Your task to perform on an android device: Empty the shopping cart on ebay. Add rayovac triple a to the cart on ebay Image 0: 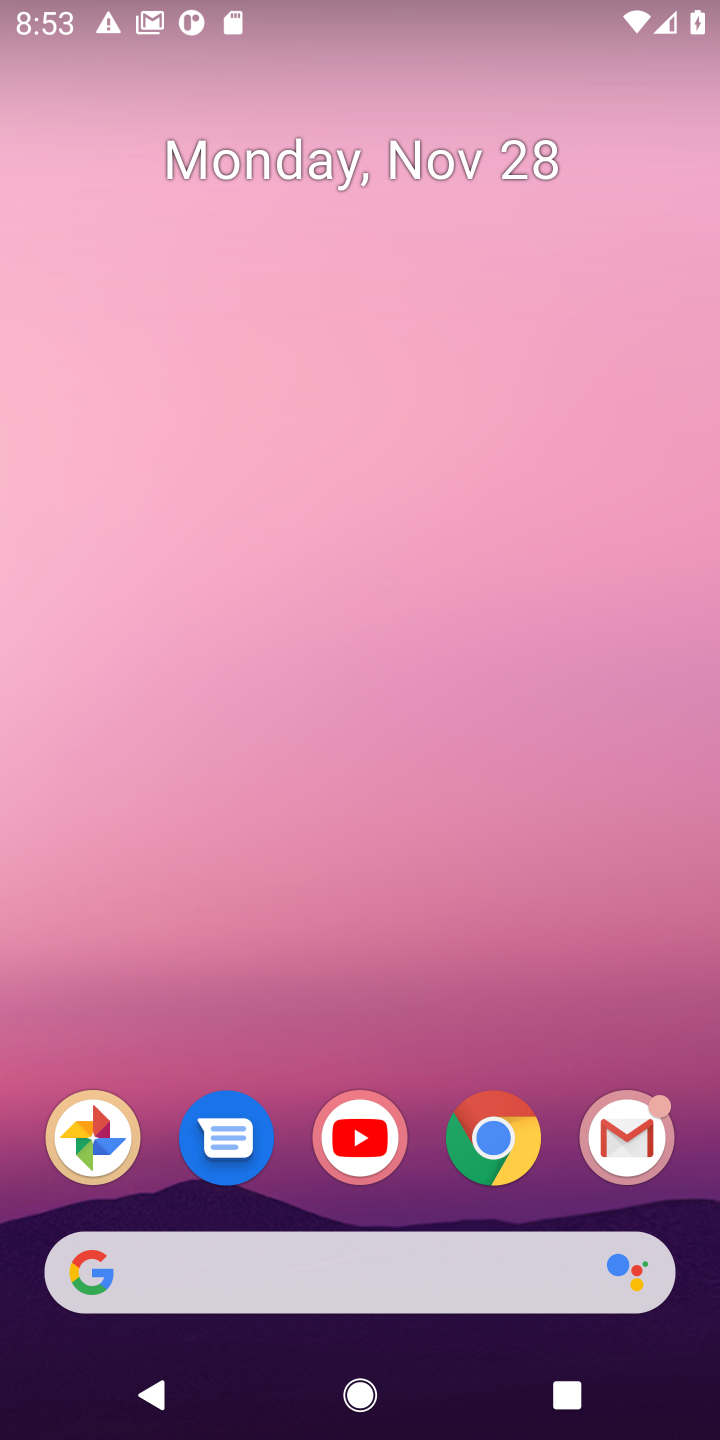
Step 0: click (496, 1144)
Your task to perform on an android device: Empty the shopping cart on ebay. Add rayovac triple a to the cart on ebay Image 1: 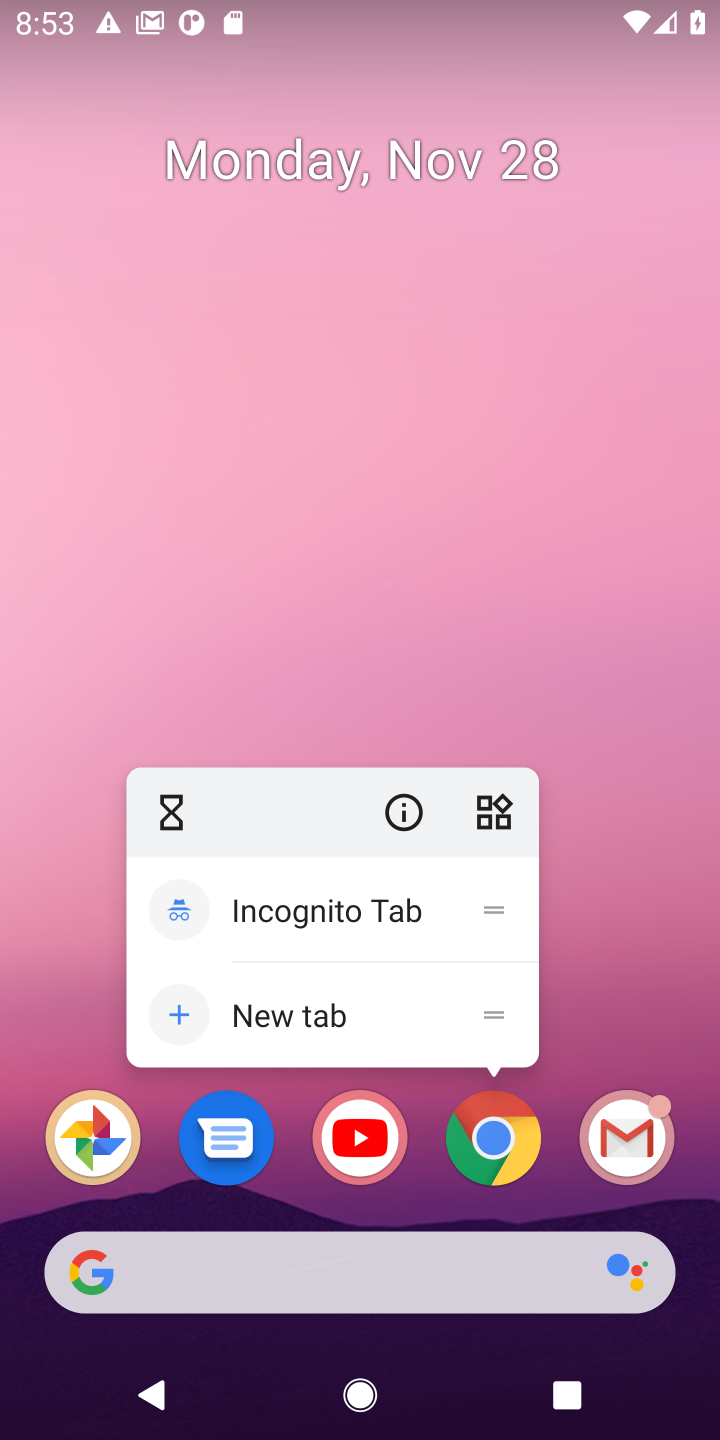
Step 1: click (496, 1144)
Your task to perform on an android device: Empty the shopping cart on ebay. Add rayovac triple a to the cart on ebay Image 2: 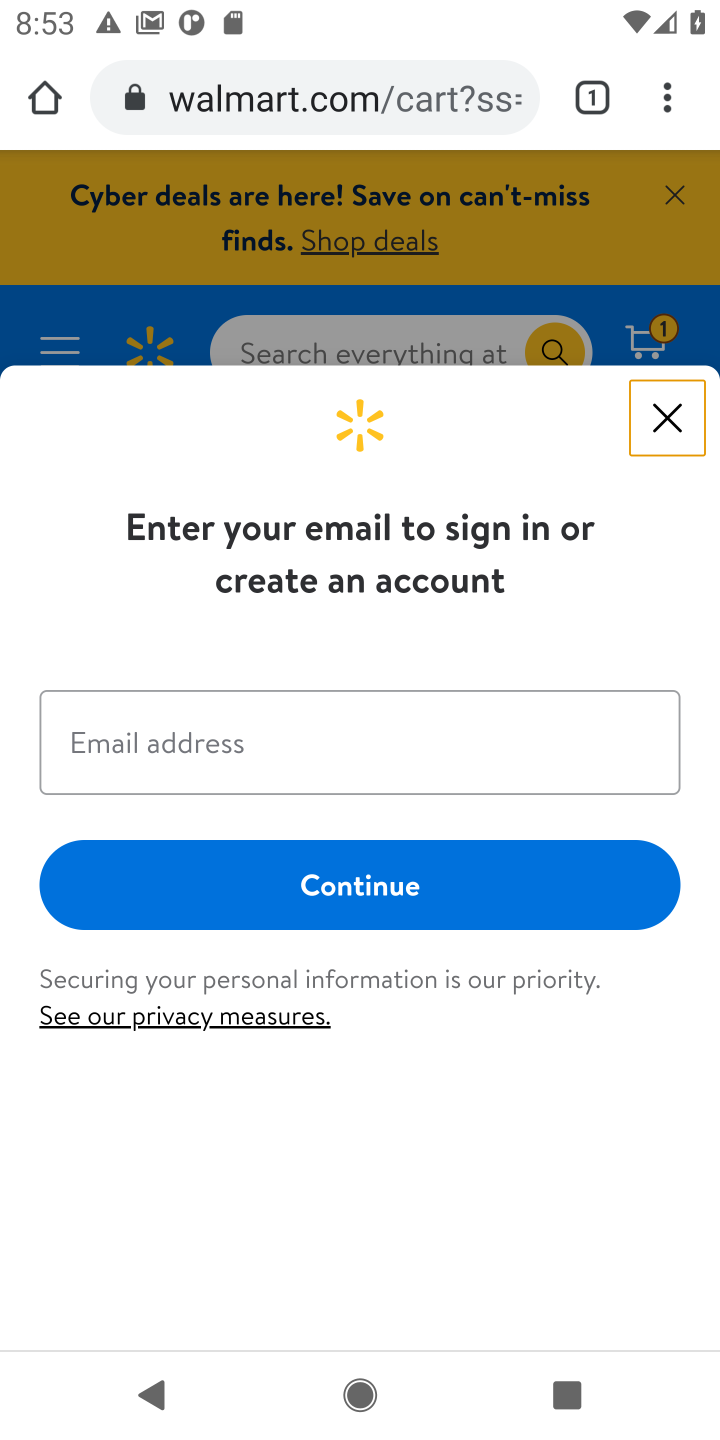
Step 2: click (267, 108)
Your task to perform on an android device: Empty the shopping cart on ebay. Add rayovac triple a to the cart on ebay Image 3: 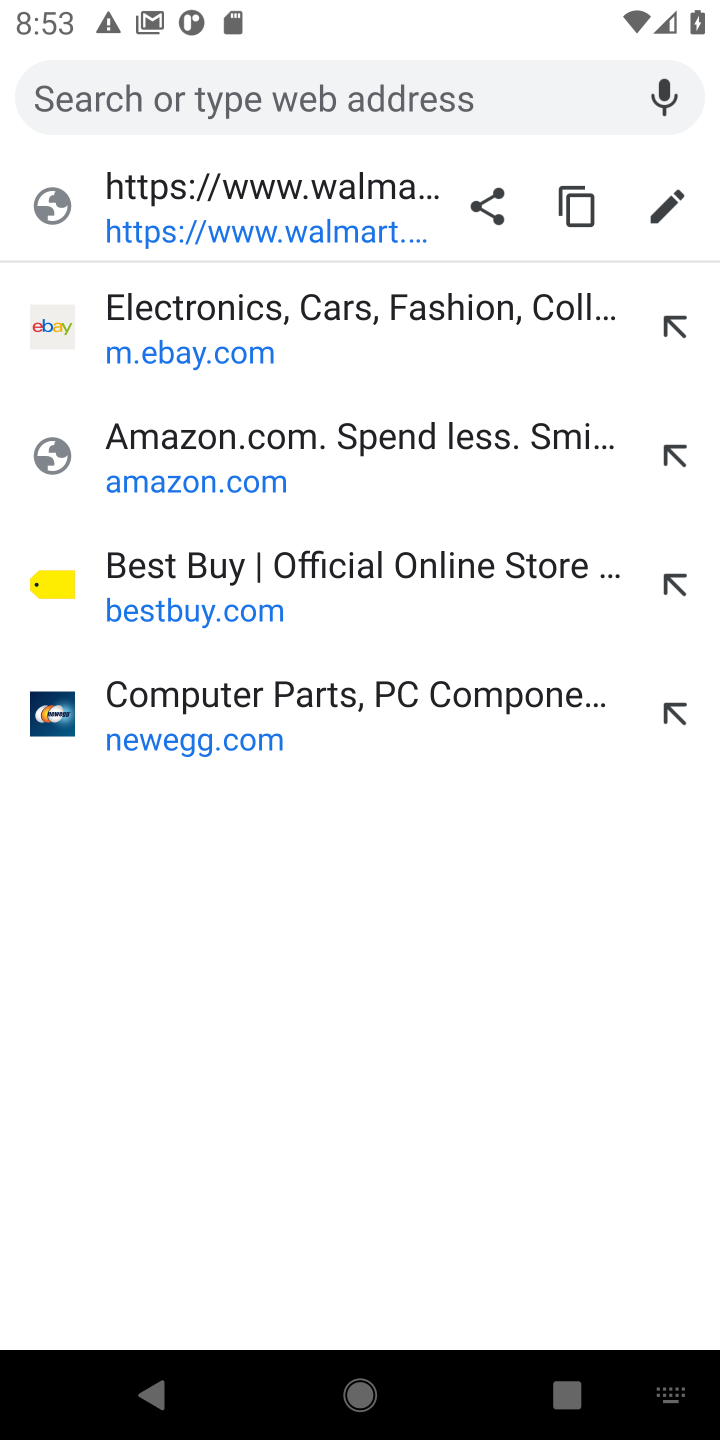
Step 3: click (180, 345)
Your task to perform on an android device: Empty the shopping cart on ebay. Add rayovac triple a to the cart on ebay Image 4: 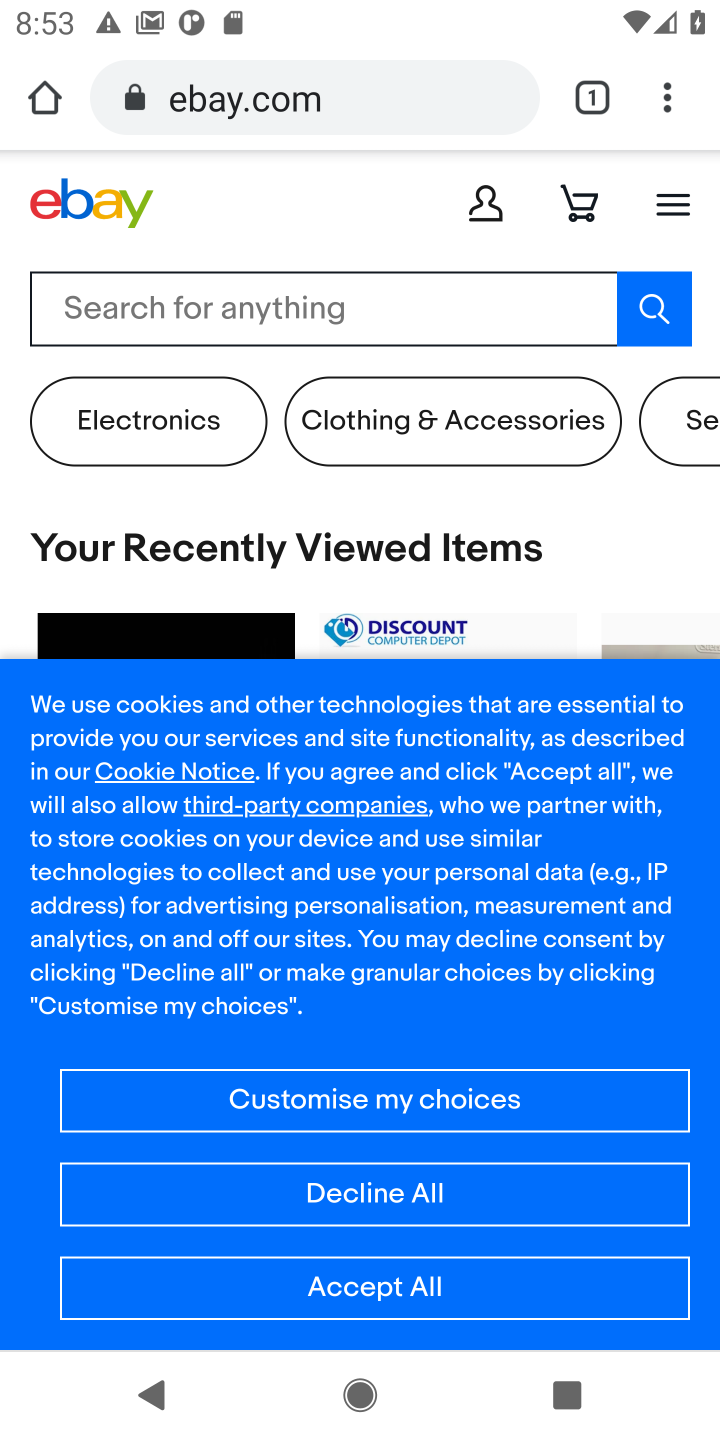
Step 4: click (585, 202)
Your task to perform on an android device: Empty the shopping cart on ebay. Add rayovac triple a to the cart on ebay Image 5: 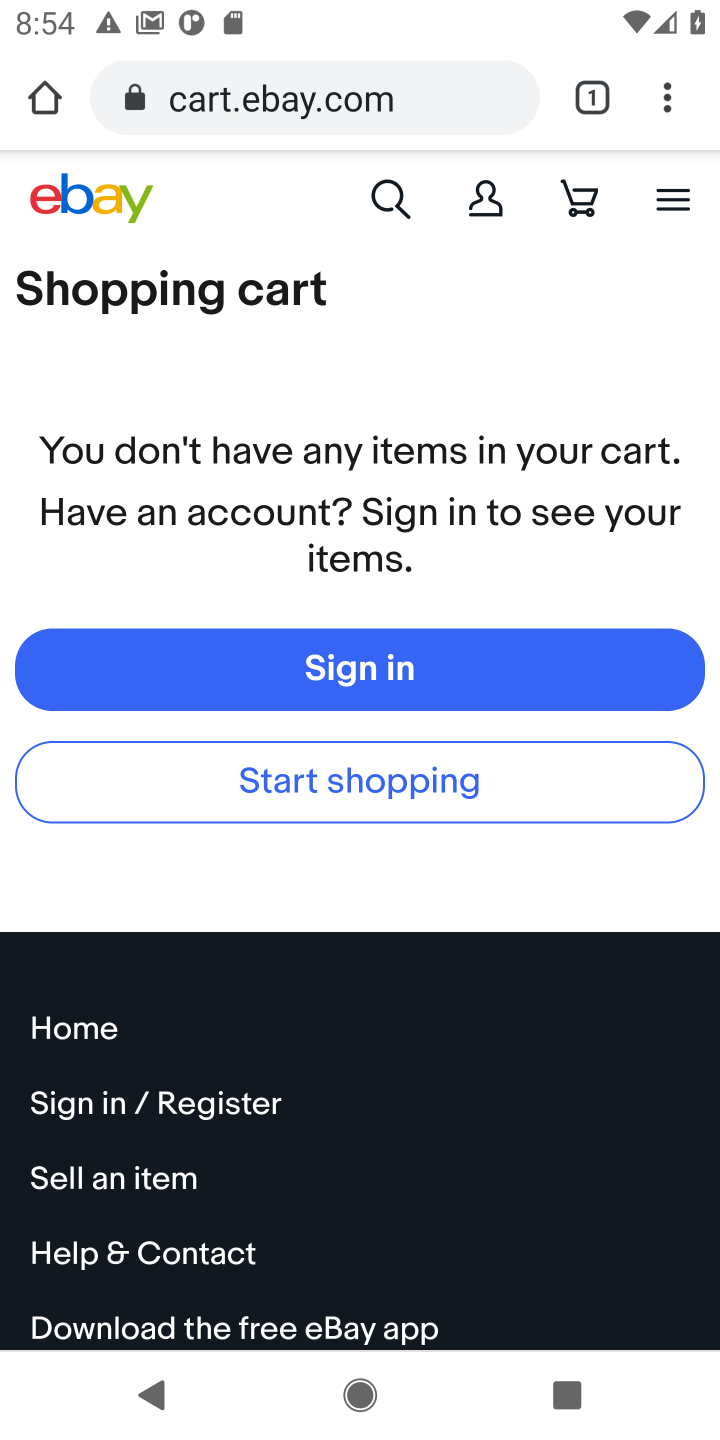
Step 5: click (374, 197)
Your task to perform on an android device: Empty the shopping cart on ebay. Add rayovac triple a to the cart on ebay Image 6: 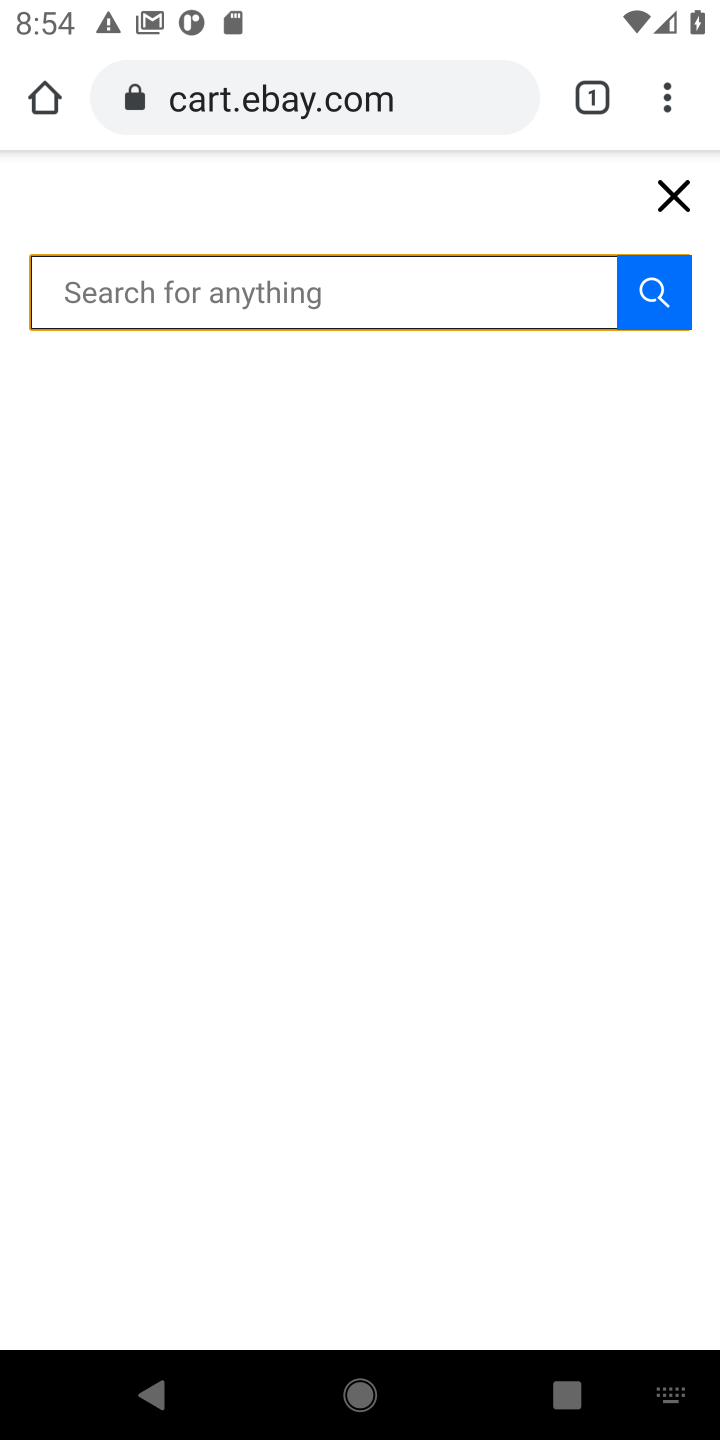
Step 6: type " rayovac triple a "
Your task to perform on an android device: Empty the shopping cart on ebay. Add rayovac triple a to the cart on ebay Image 7: 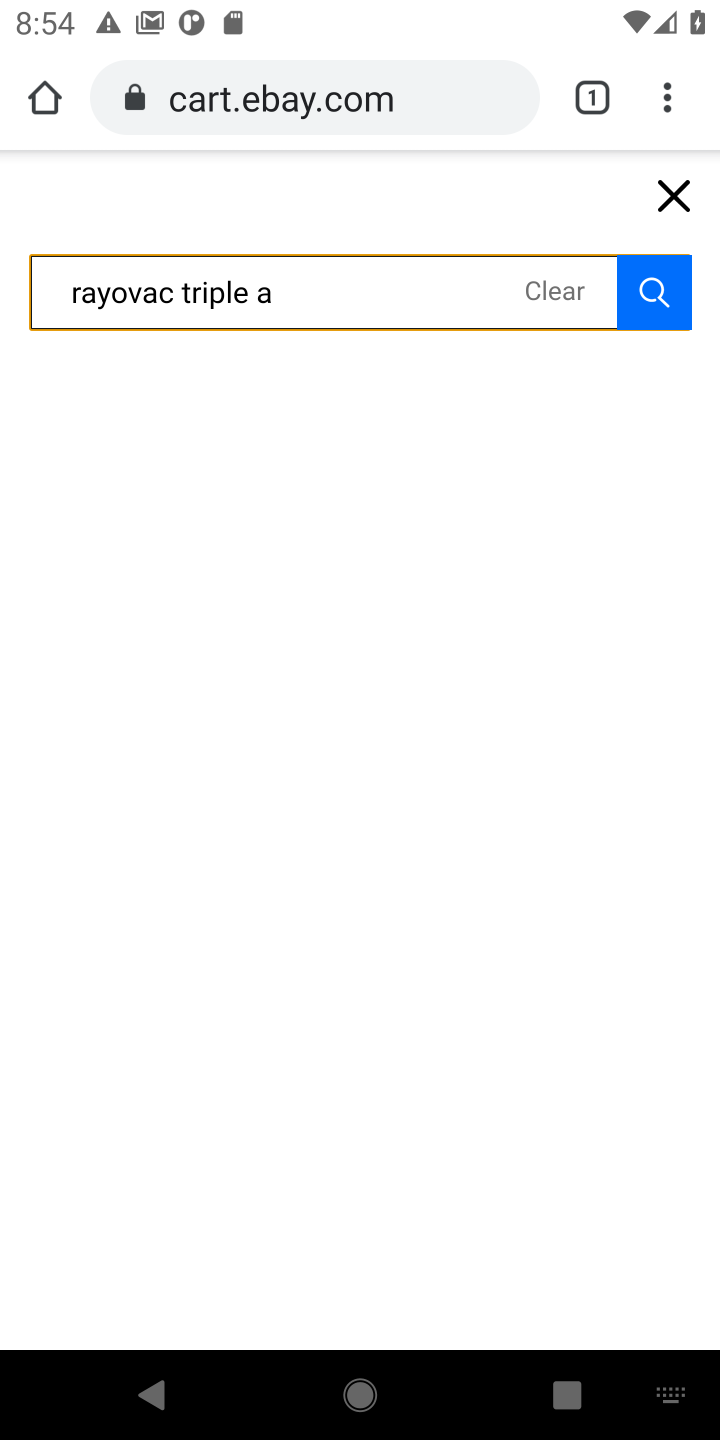
Step 7: click (668, 309)
Your task to perform on an android device: Empty the shopping cart on ebay. Add rayovac triple a to the cart on ebay Image 8: 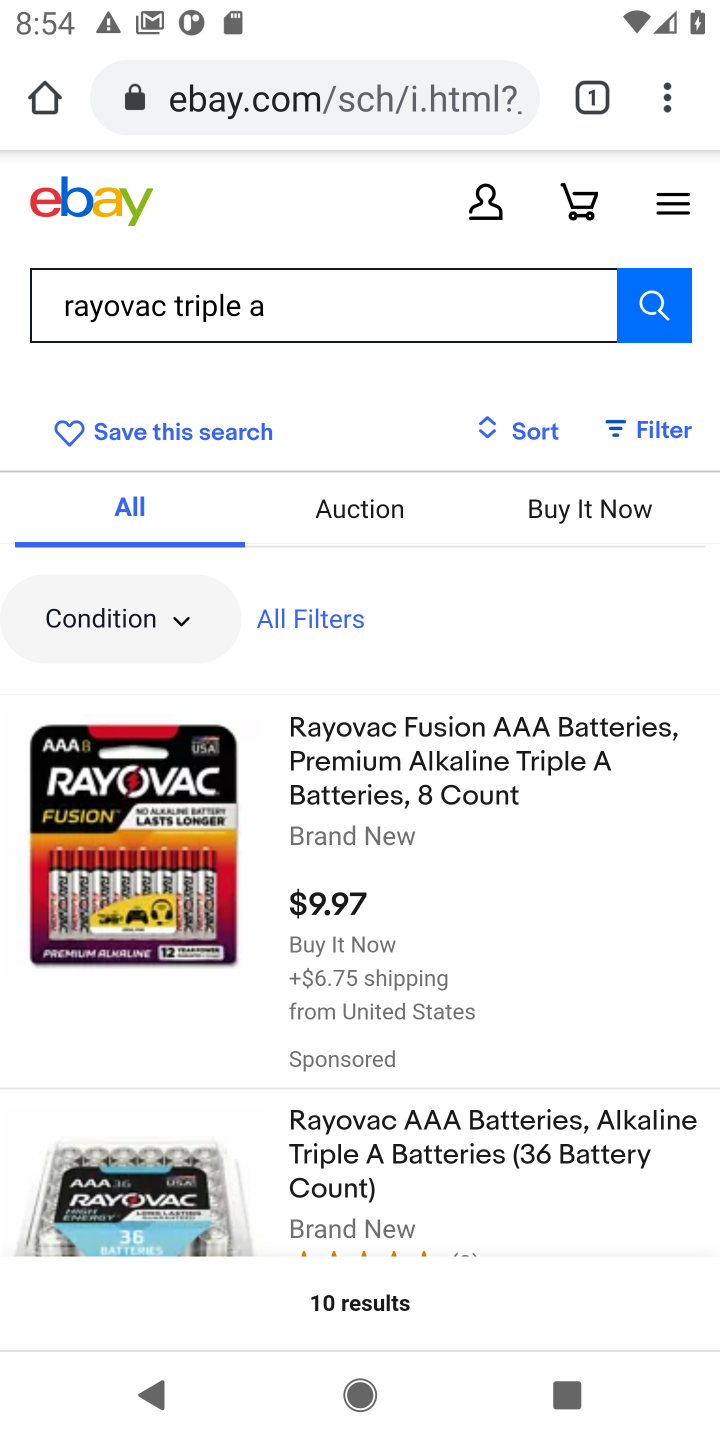
Step 8: click (344, 776)
Your task to perform on an android device: Empty the shopping cart on ebay. Add rayovac triple a to the cart on ebay Image 9: 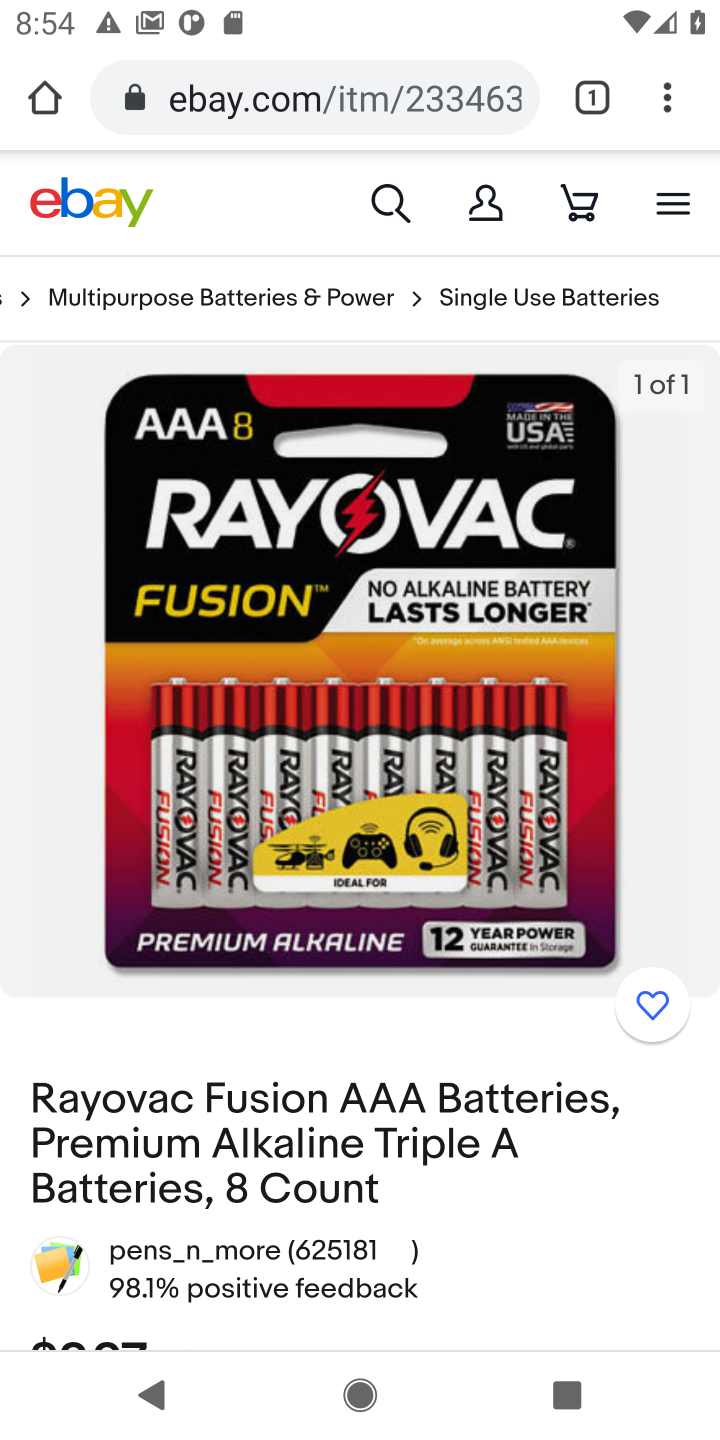
Step 9: drag from (454, 1139) to (379, 548)
Your task to perform on an android device: Empty the shopping cart on ebay. Add rayovac triple a to the cart on ebay Image 10: 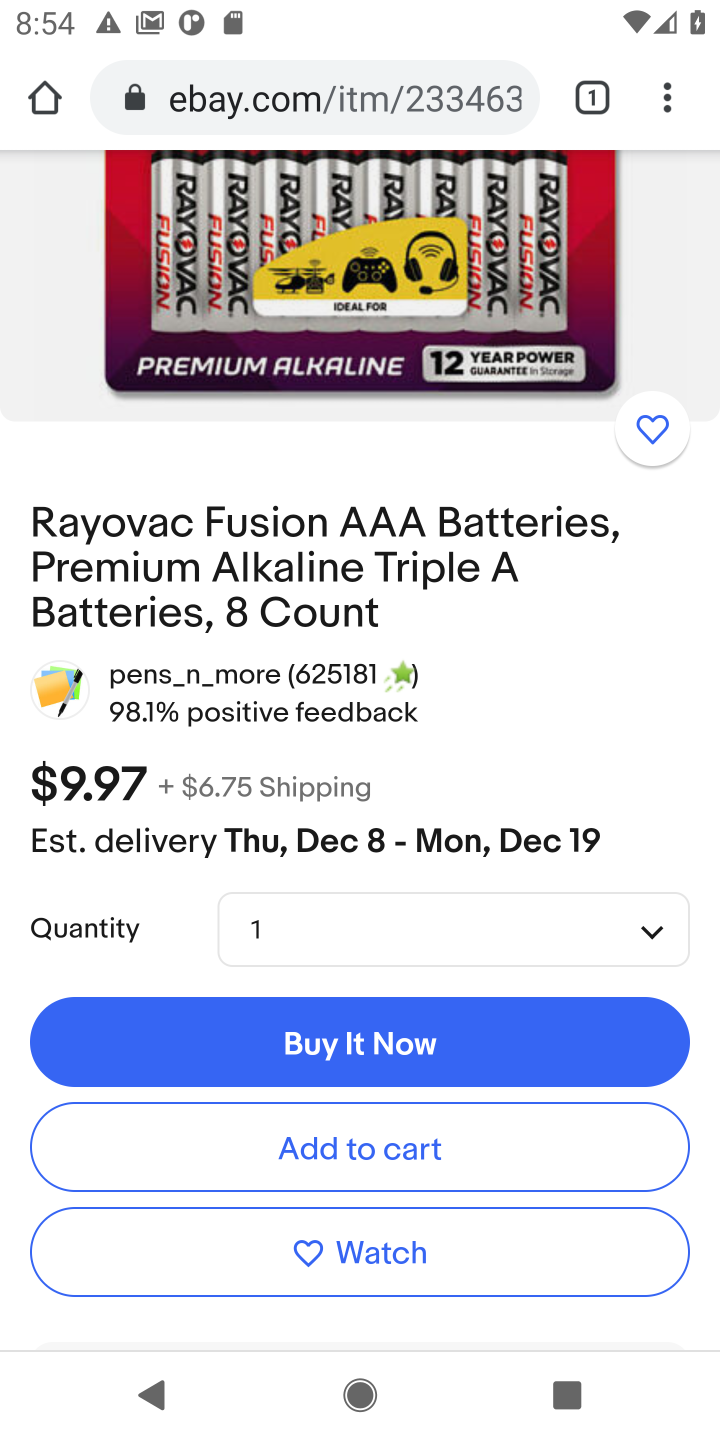
Step 10: click (348, 1153)
Your task to perform on an android device: Empty the shopping cart on ebay. Add rayovac triple a to the cart on ebay Image 11: 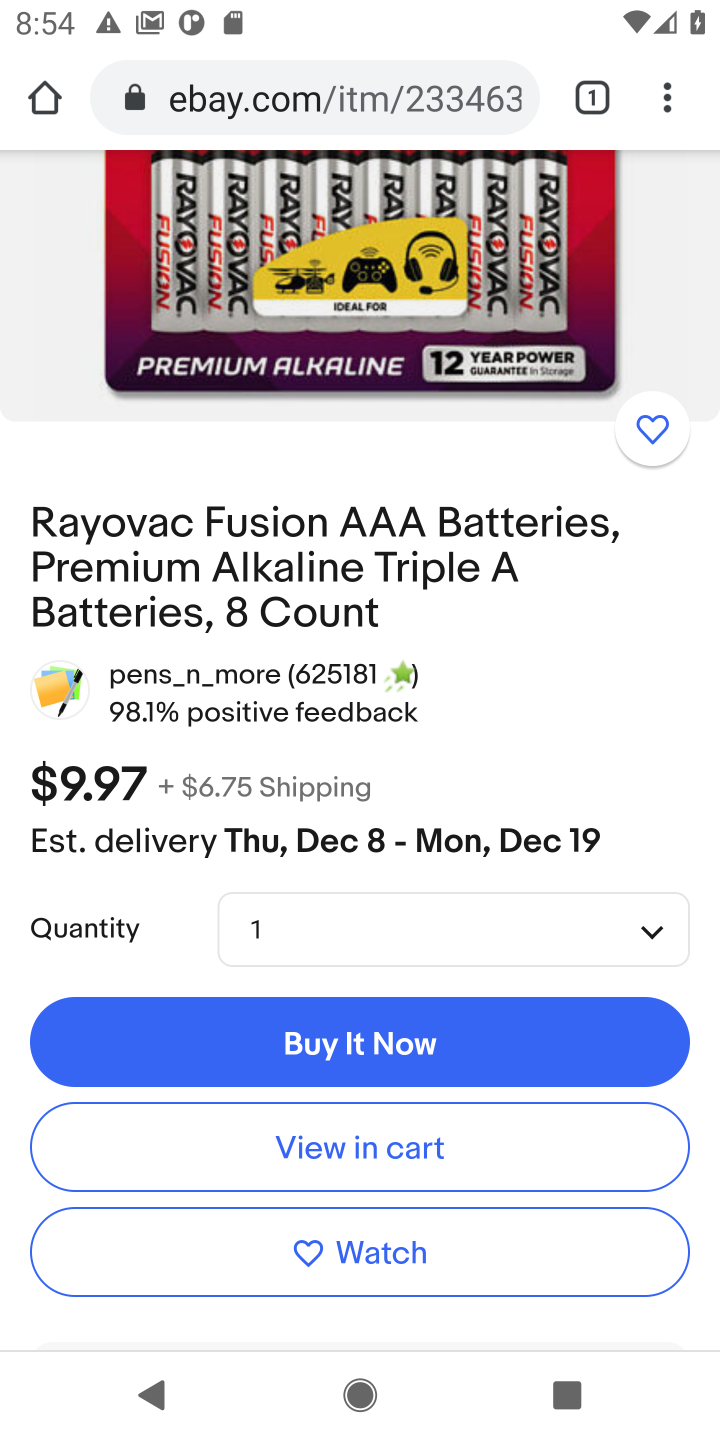
Step 11: task complete